Your task to perform on an android device: open device folders in google photos Image 0: 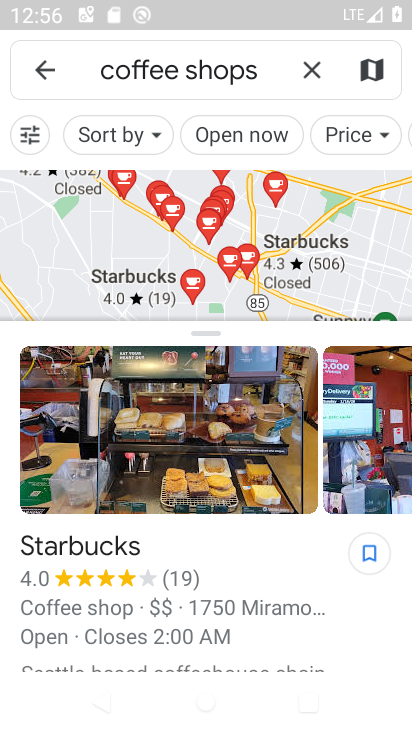
Step 0: press home button
Your task to perform on an android device: open device folders in google photos Image 1: 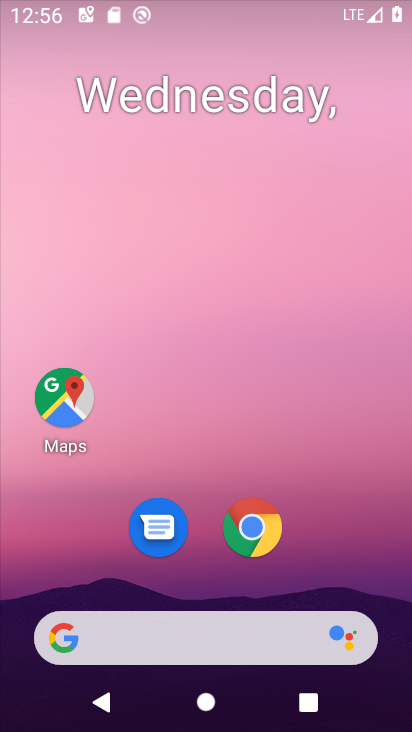
Step 1: drag from (248, 623) to (218, 28)
Your task to perform on an android device: open device folders in google photos Image 2: 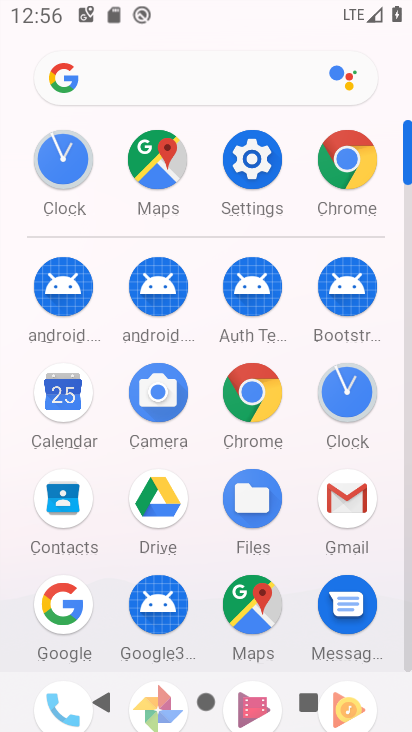
Step 2: drag from (193, 620) to (216, 405)
Your task to perform on an android device: open device folders in google photos Image 3: 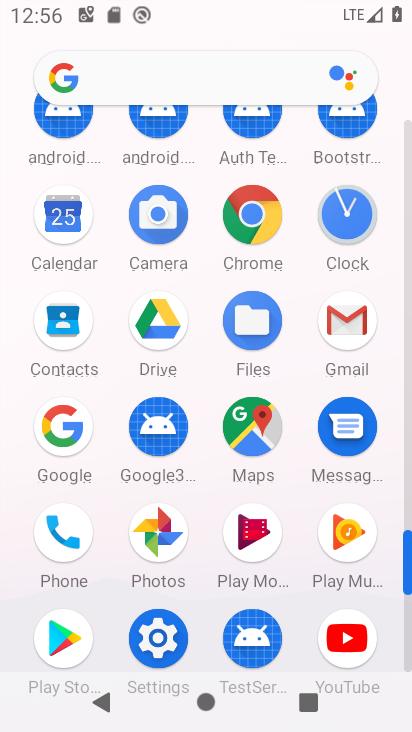
Step 3: click (170, 531)
Your task to perform on an android device: open device folders in google photos Image 4: 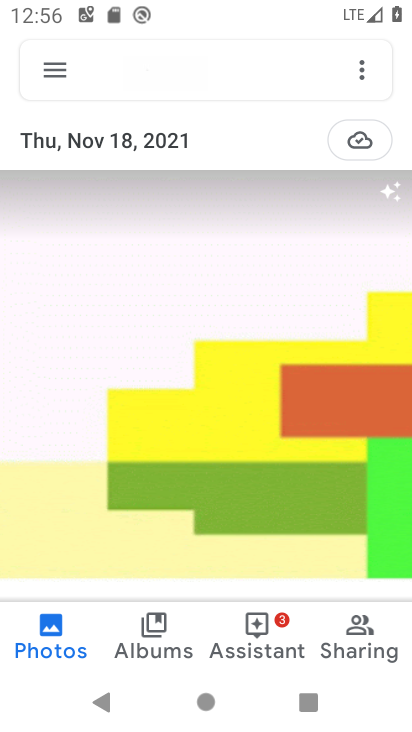
Step 4: click (74, 63)
Your task to perform on an android device: open device folders in google photos Image 5: 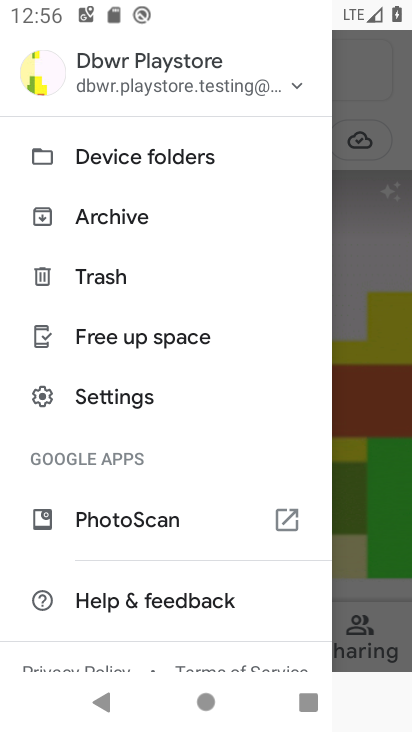
Step 5: click (132, 165)
Your task to perform on an android device: open device folders in google photos Image 6: 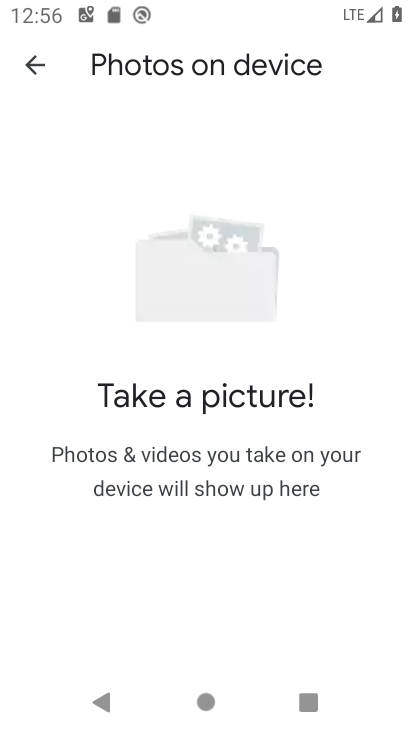
Step 6: task complete